Your task to perform on an android device: change notification settings in the gmail app Image 0: 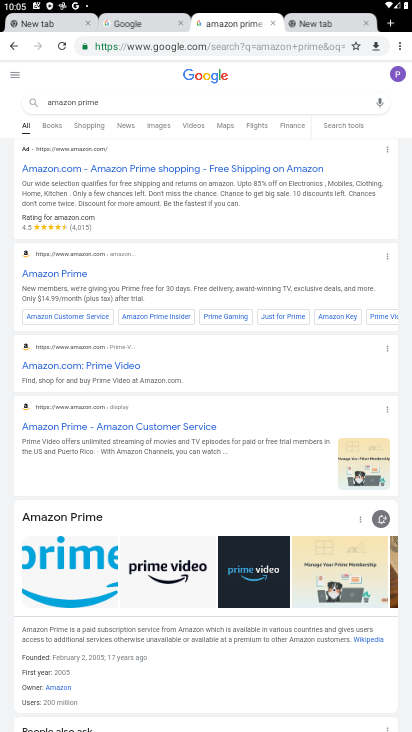
Step 0: press home button
Your task to perform on an android device: change notification settings in the gmail app Image 1: 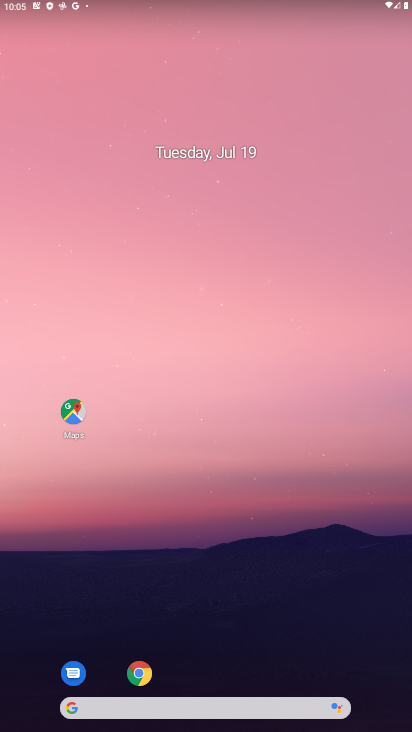
Step 1: drag from (239, 668) to (279, 2)
Your task to perform on an android device: change notification settings in the gmail app Image 2: 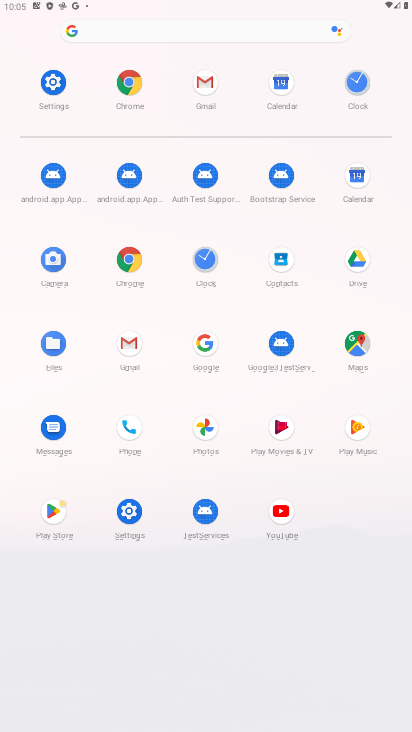
Step 2: click (67, 92)
Your task to perform on an android device: change notification settings in the gmail app Image 3: 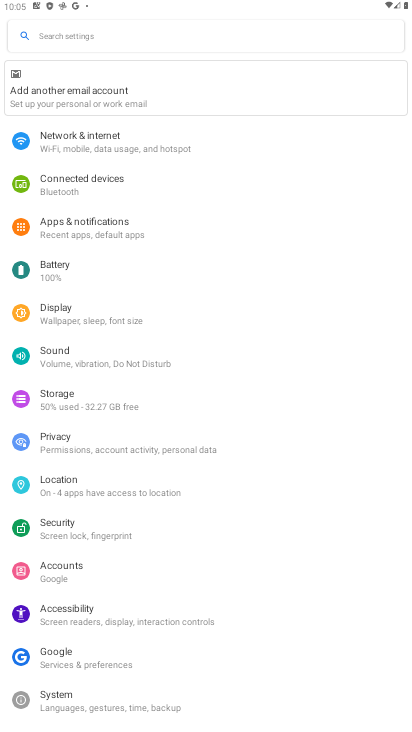
Step 3: task complete